Your task to perform on an android device: Open calendar and show me the fourth week of next month Image 0: 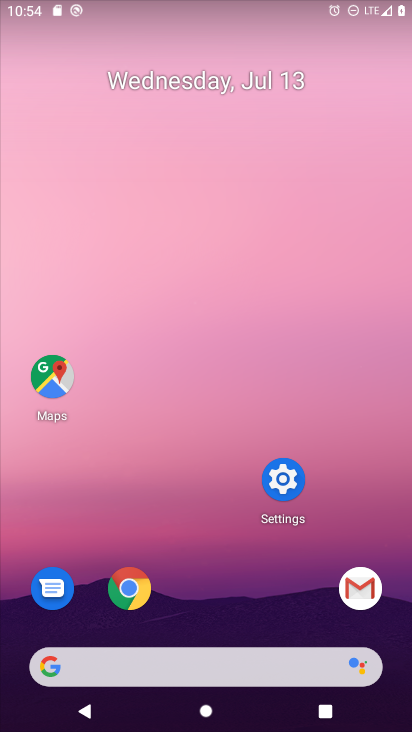
Step 0: drag from (251, 681) to (203, 51)
Your task to perform on an android device: Open calendar and show me the fourth week of next month Image 1: 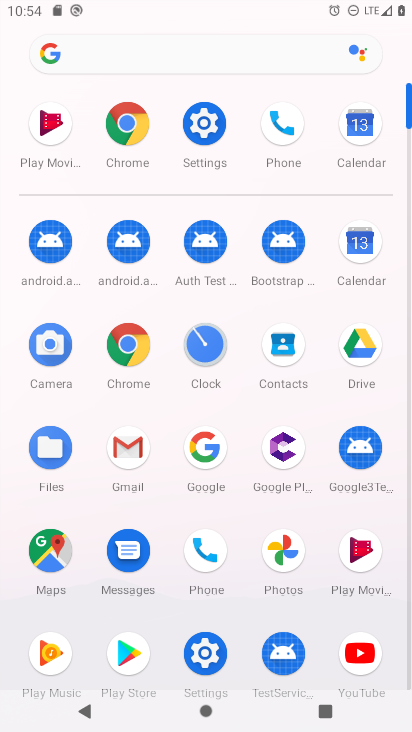
Step 1: click (358, 259)
Your task to perform on an android device: Open calendar and show me the fourth week of next month Image 2: 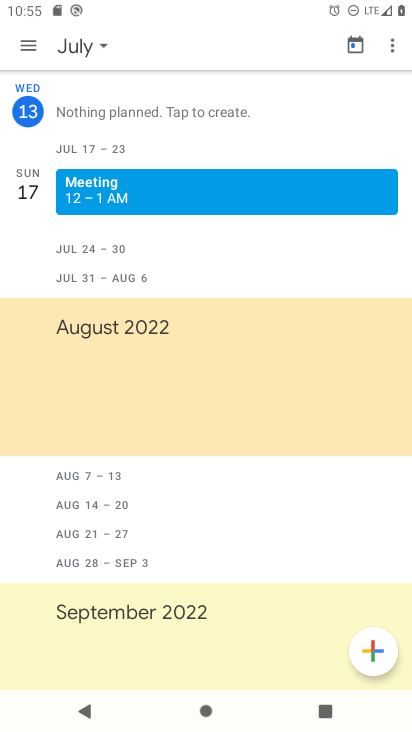
Step 2: click (41, 49)
Your task to perform on an android device: Open calendar and show me the fourth week of next month Image 3: 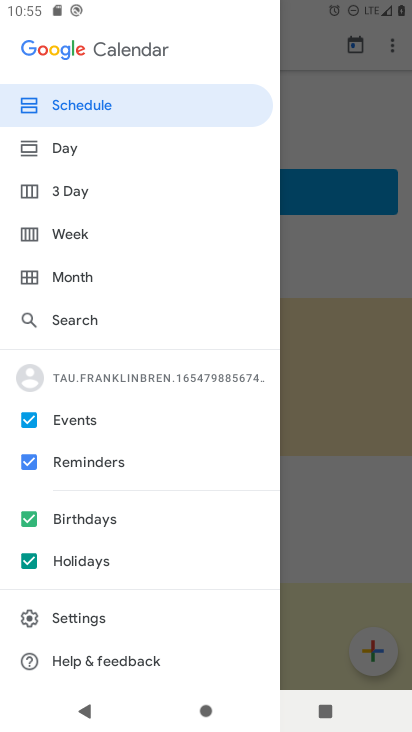
Step 3: click (96, 278)
Your task to perform on an android device: Open calendar and show me the fourth week of next month Image 4: 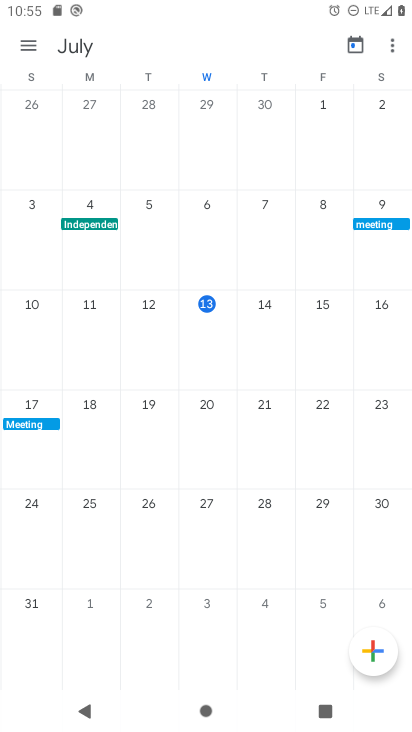
Step 4: drag from (376, 403) to (1, 402)
Your task to perform on an android device: Open calendar and show me the fourth week of next month Image 5: 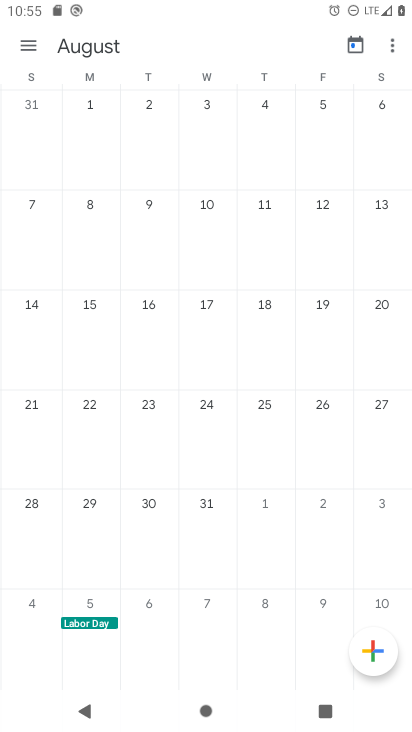
Step 5: click (95, 418)
Your task to perform on an android device: Open calendar and show me the fourth week of next month Image 6: 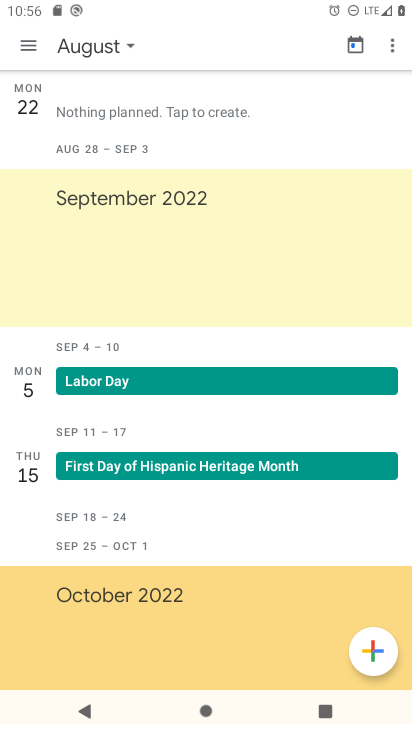
Step 6: task complete